Your task to perform on an android device: Open Google Maps and go to "Timeline" Image 0: 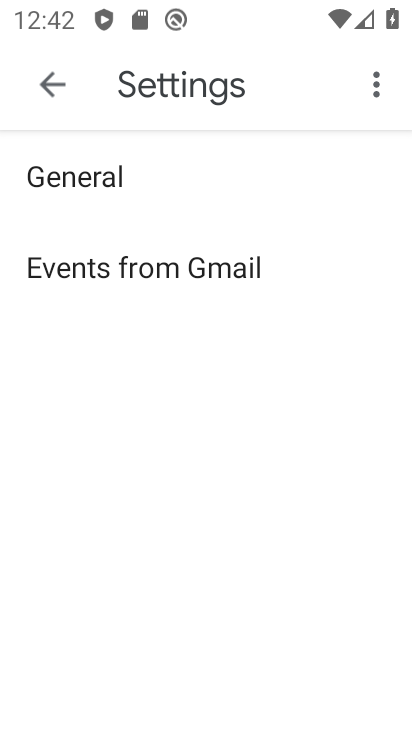
Step 0: click (17, 75)
Your task to perform on an android device: Open Google Maps and go to "Timeline" Image 1: 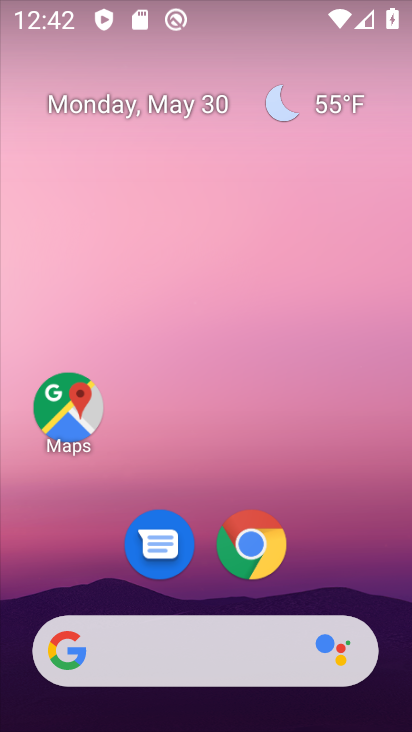
Step 1: click (97, 408)
Your task to perform on an android device: Open Google Maps and go to "Timeline" Image 2: 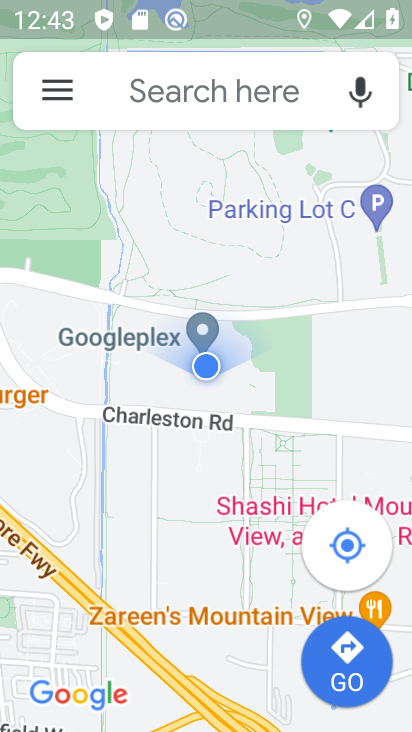
Step 2: click (67, 113)
Your task to perform on an android device: Open Google Maps and go to "Timeline" Image 3: 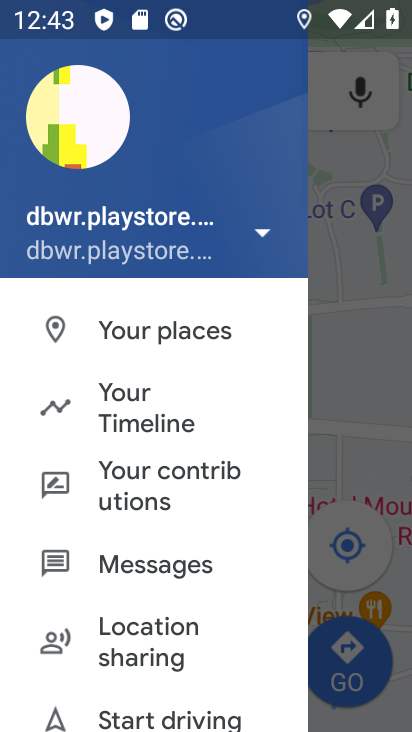
Step 3: click (166, 415)
Your task to perform on an android device: Open Google Maps and go to "Timeline" Image 4: 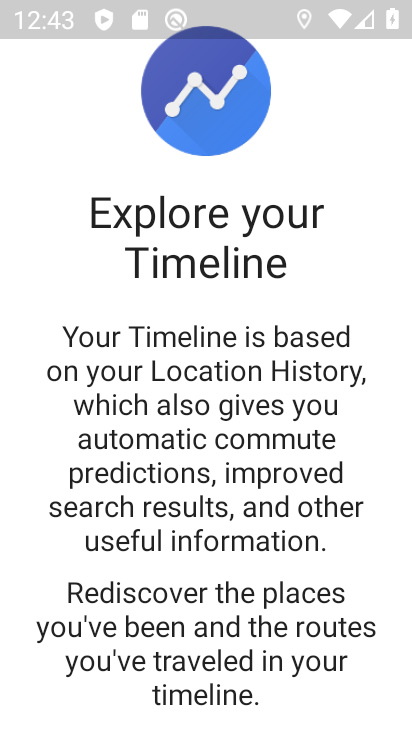
Step 4: drag from (244, 651) to (235, 306)
Your task to perform on an android device: Open Google Maps and go to "Timeline" Image 5: 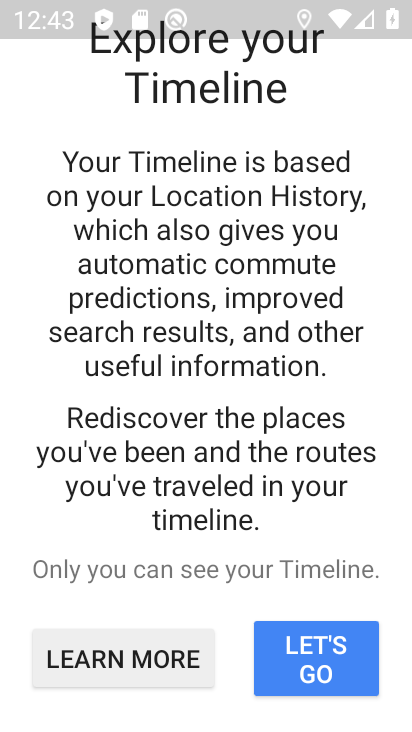
Step 5: click (312, 652)
Your task to perform on an android device: Open Google Maps and go to "Timeline" Image 6: 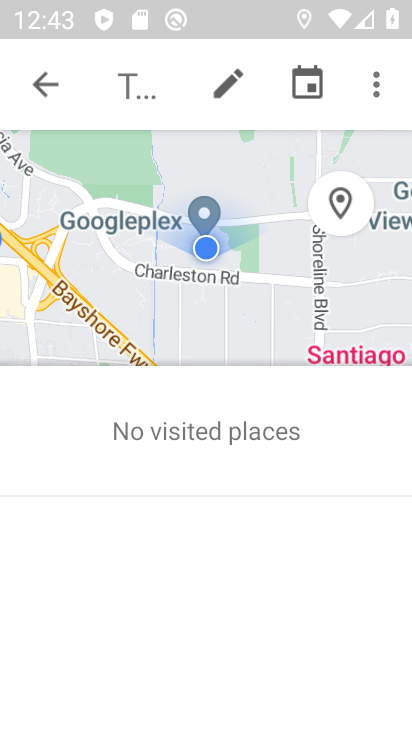
Step 6: task complete